Your task to perform on an android device: turn off javascript in the chrome app Image 0: 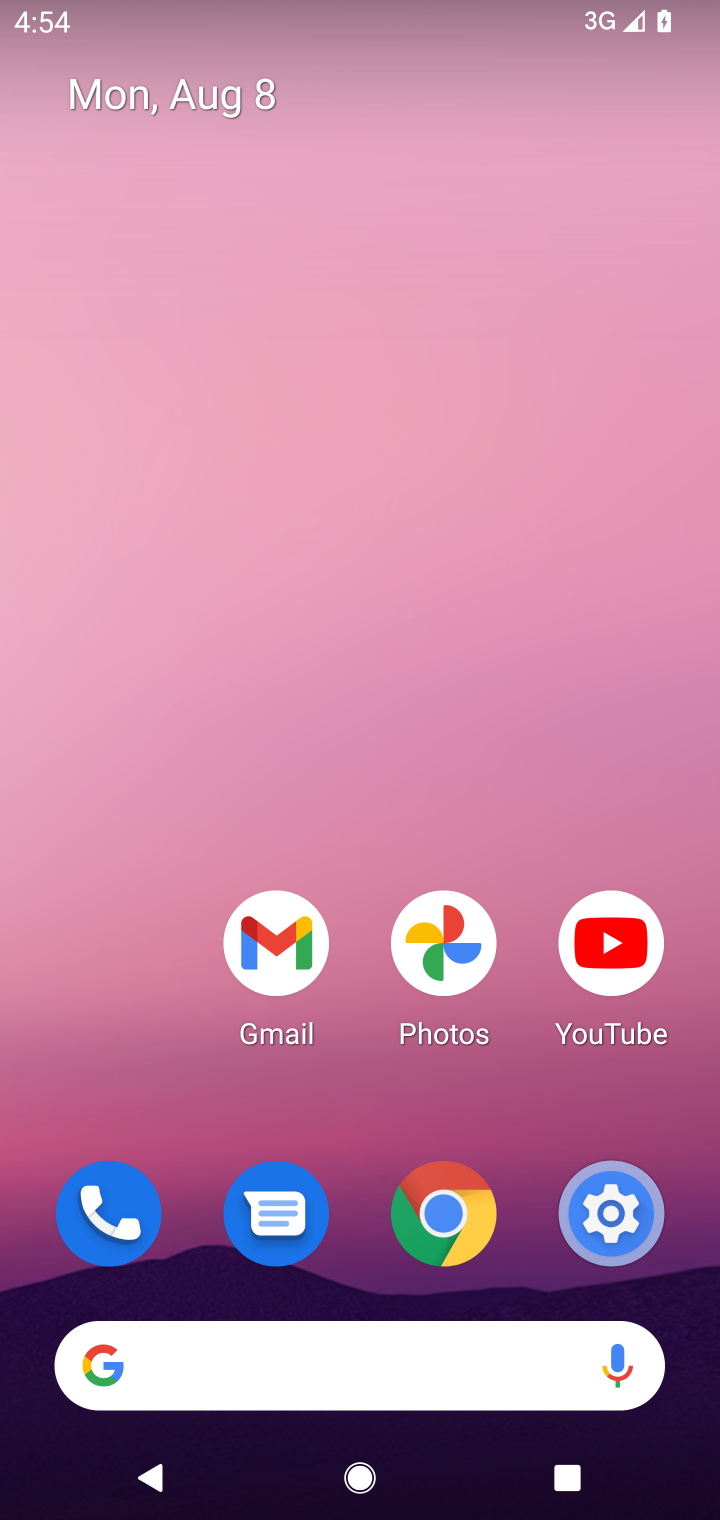
Step 0: click (407, 1248)
Your task to perform on an android device: turn off javascript in the chrome app Image 1: 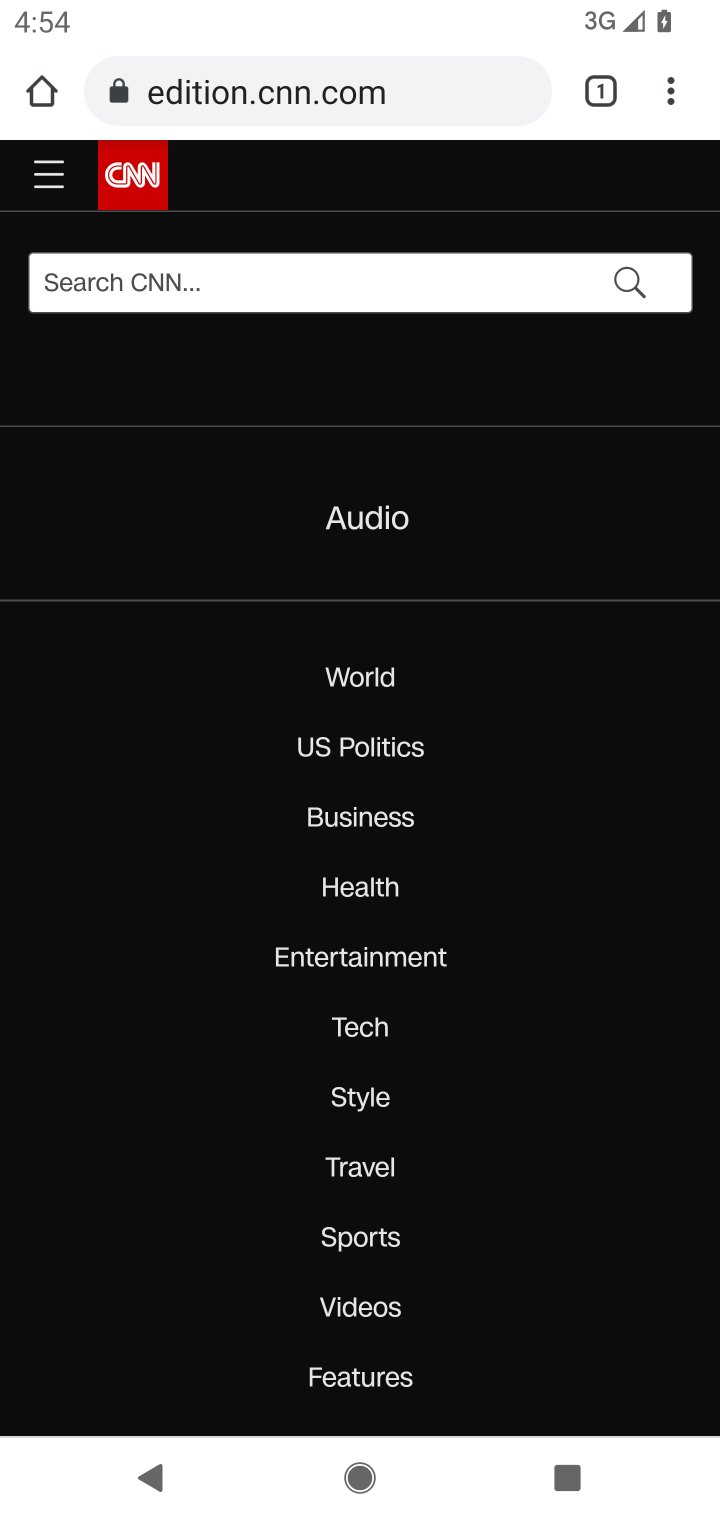
Step 1: click (673, 97)
Your task to perform on an android device: turn off javascript in the chrome app Image 2: 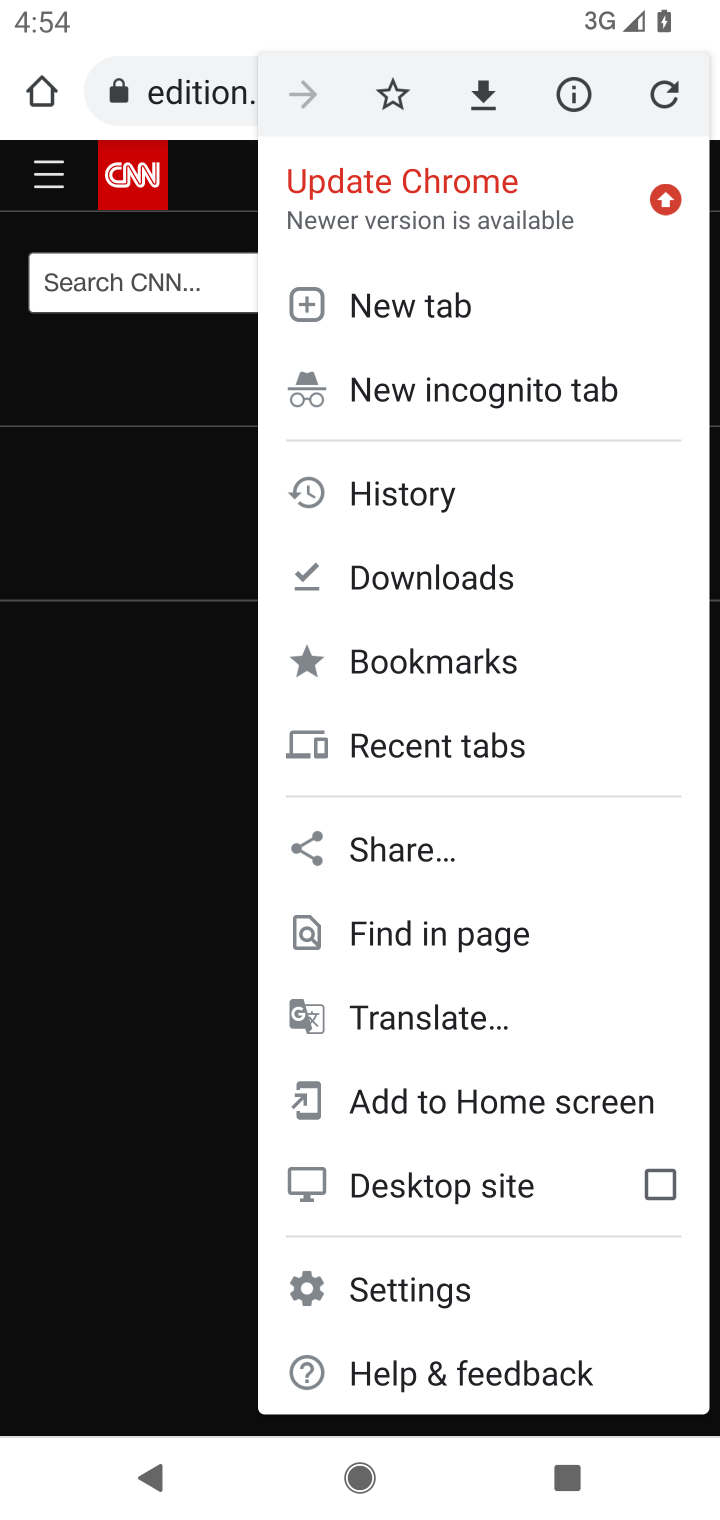
Step 2: click (437, 1285)
Your task to perform on an android device: turn off javascript in the chrome app Image 3: 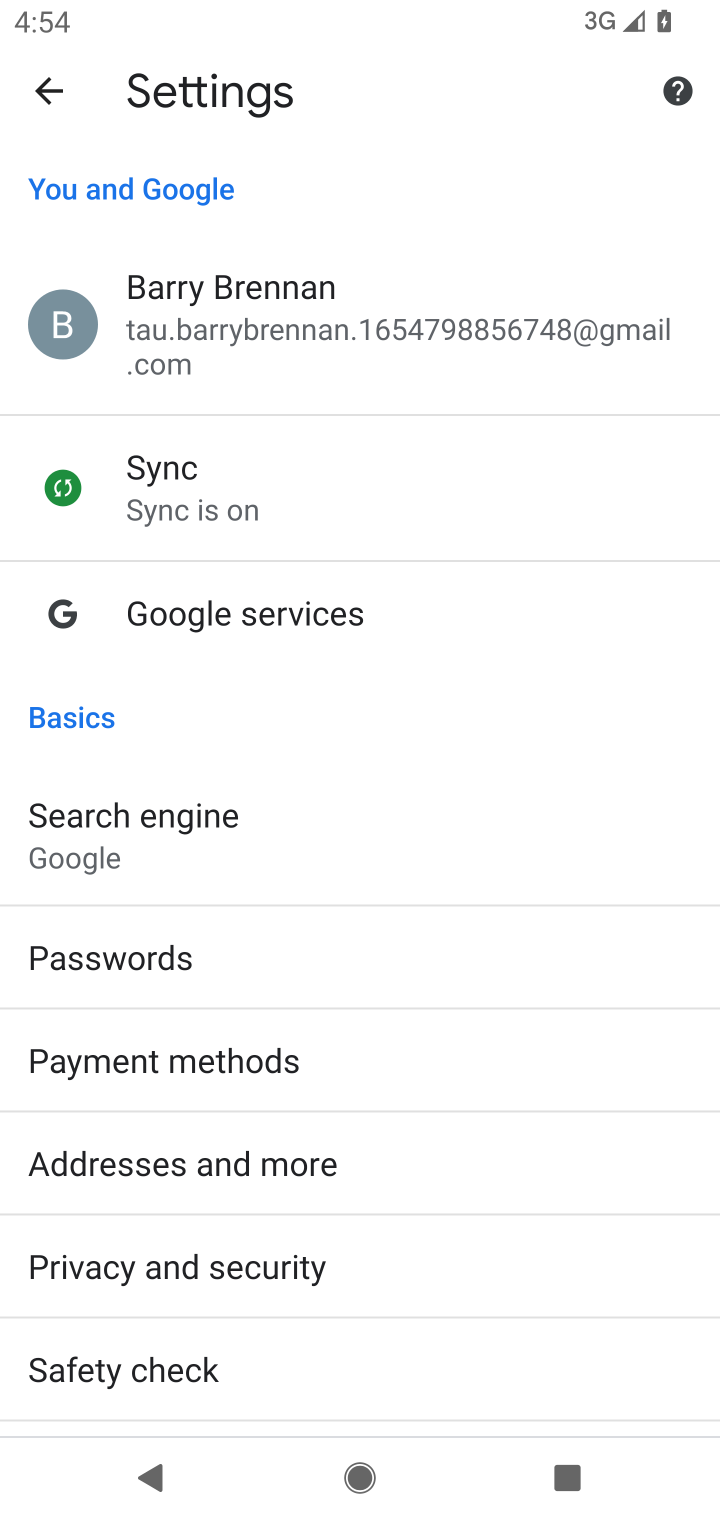
Step 3: drag from (284, 1375) to (284, 268)
Your task to perform on an android device: turn off javascript in the chrome app Image 4: 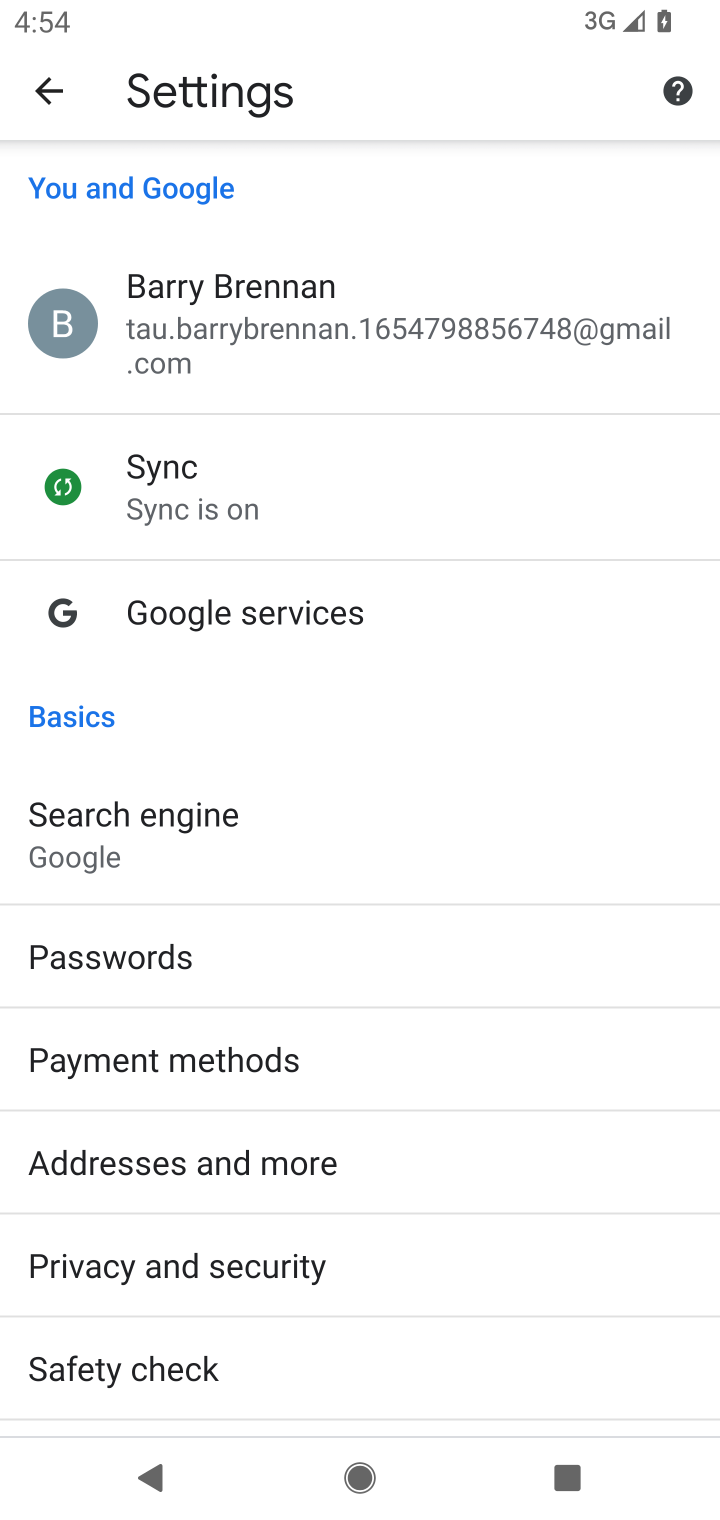
Step 4: drag from (282, 864) to (349, 13)
Your task to perform on an android device: turn off javascript in the chrome app Image 5: 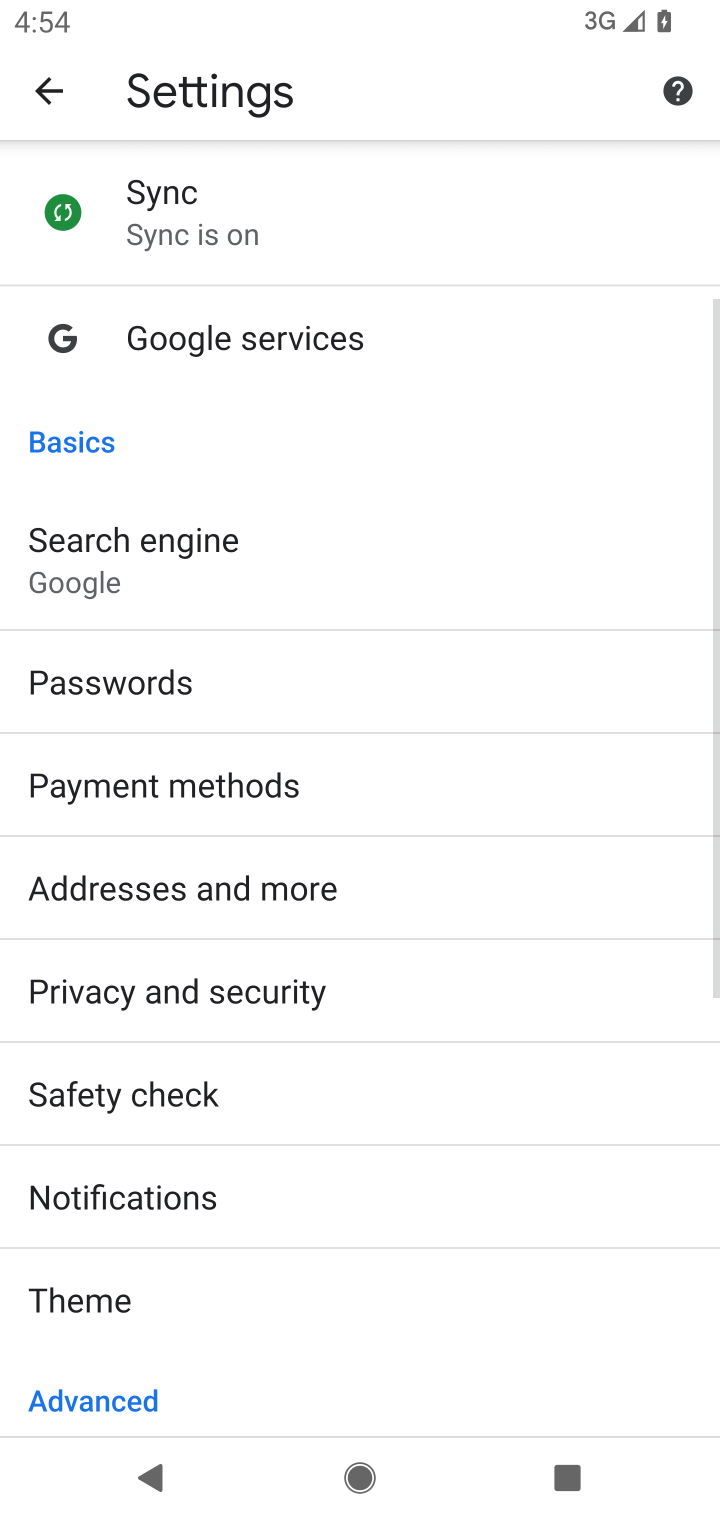
Step 5: drag from (377, 1129) to (377, 547)
Your task to perform on an android device: turn off javascript in the chrome app Image 6: 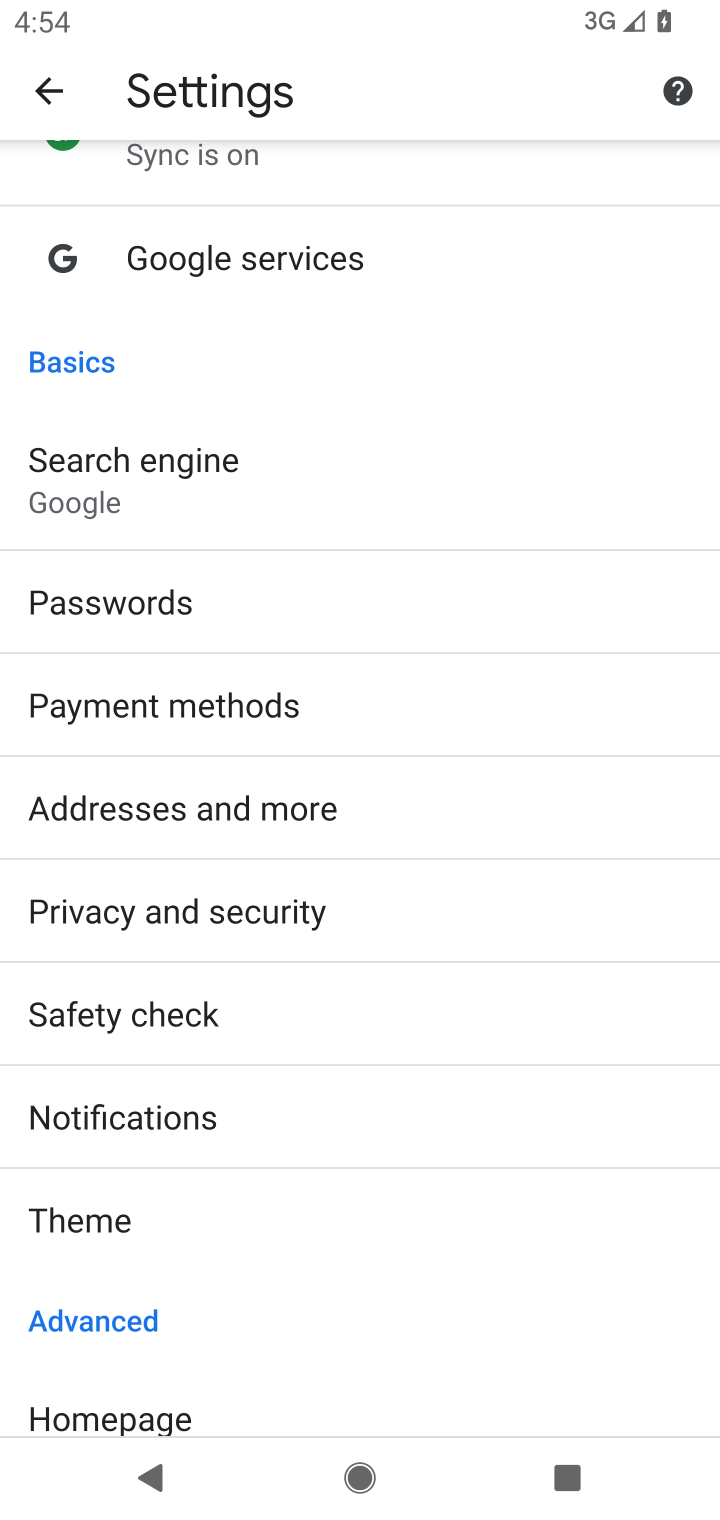
Step 6: drag from (321, 1359) to (322, 551)
Your task to perform on an android device: turn off javascript in the chrome app Image 7: 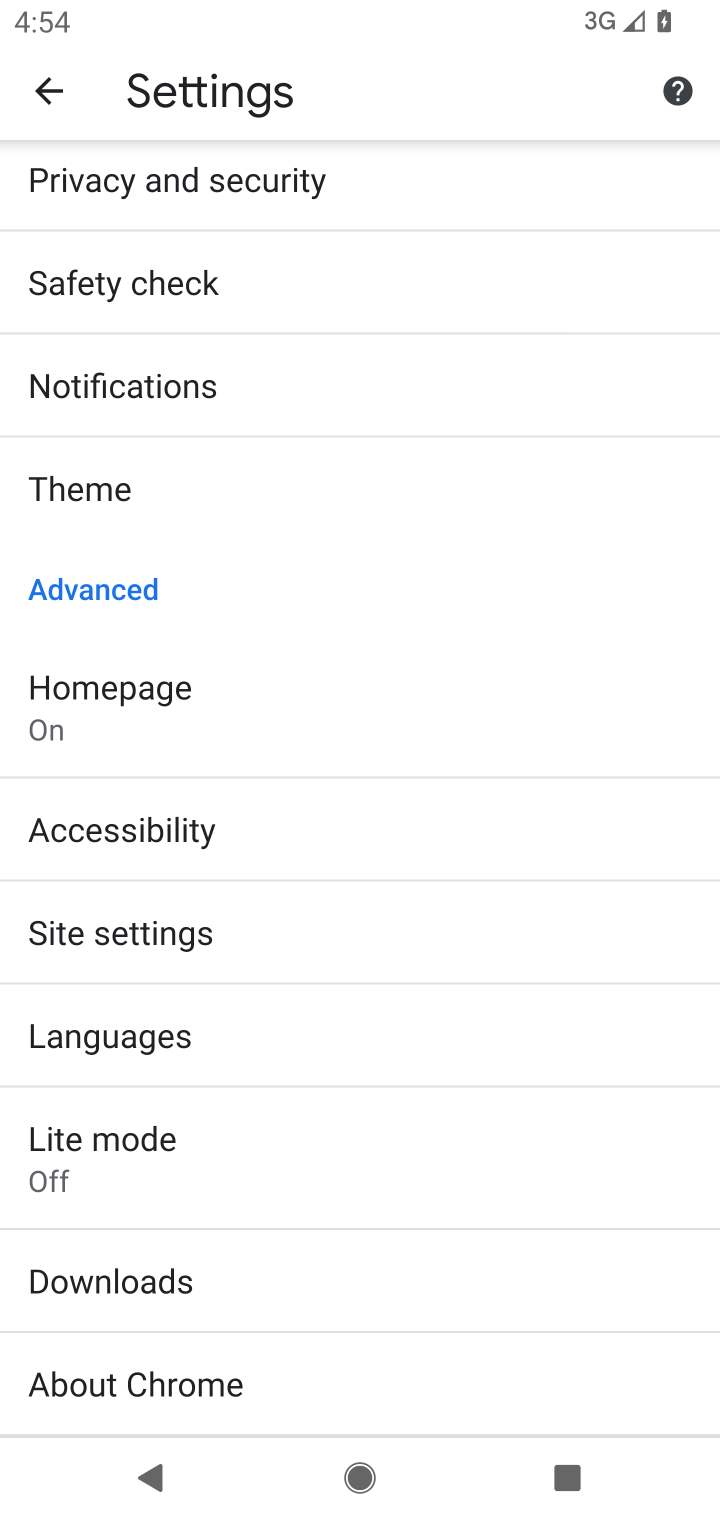
Step 7: click (382, 911)
Your task to perform on an android device: turn off javascript in the chrome app Image 8: 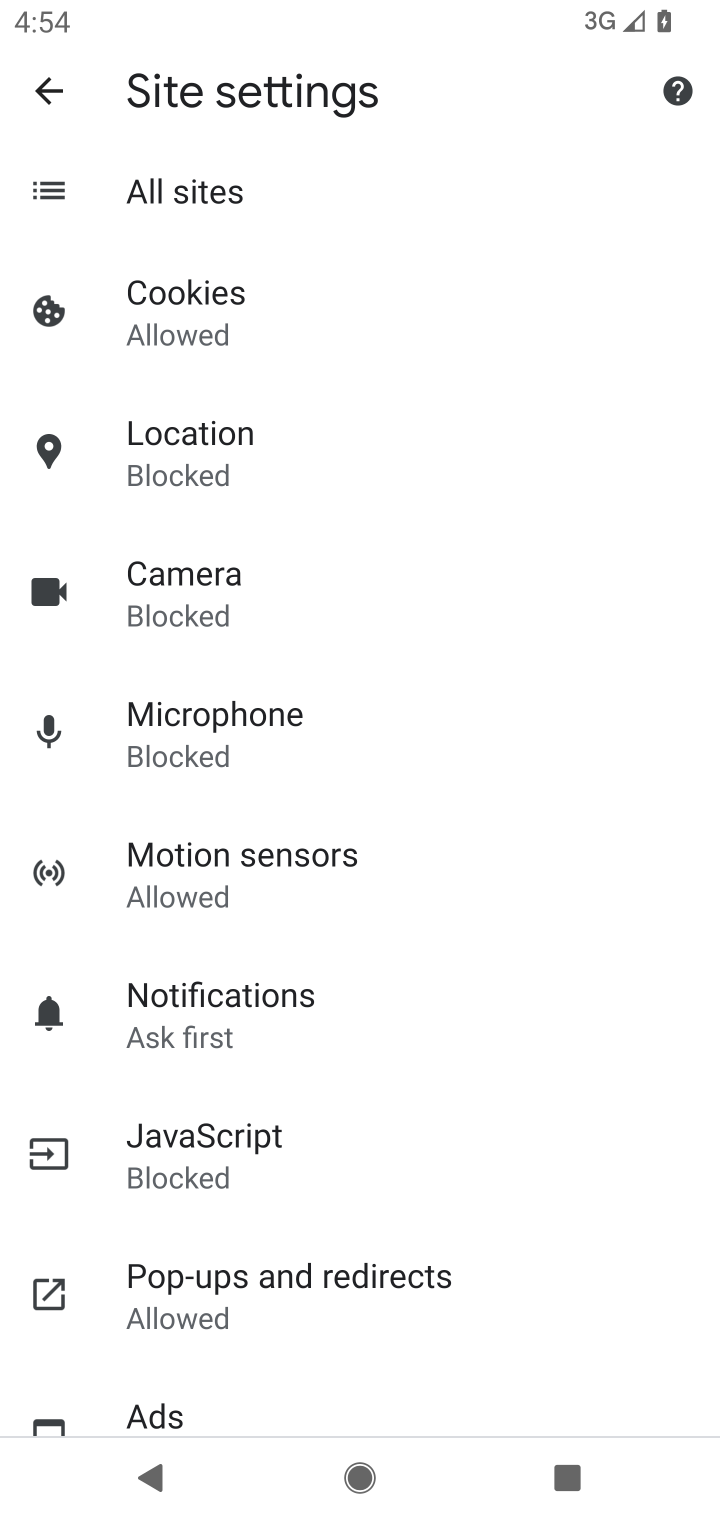
Step 8: click (360, 1164)
Your task to perform on an android device: turn off javascript in the chrome app Image 9: 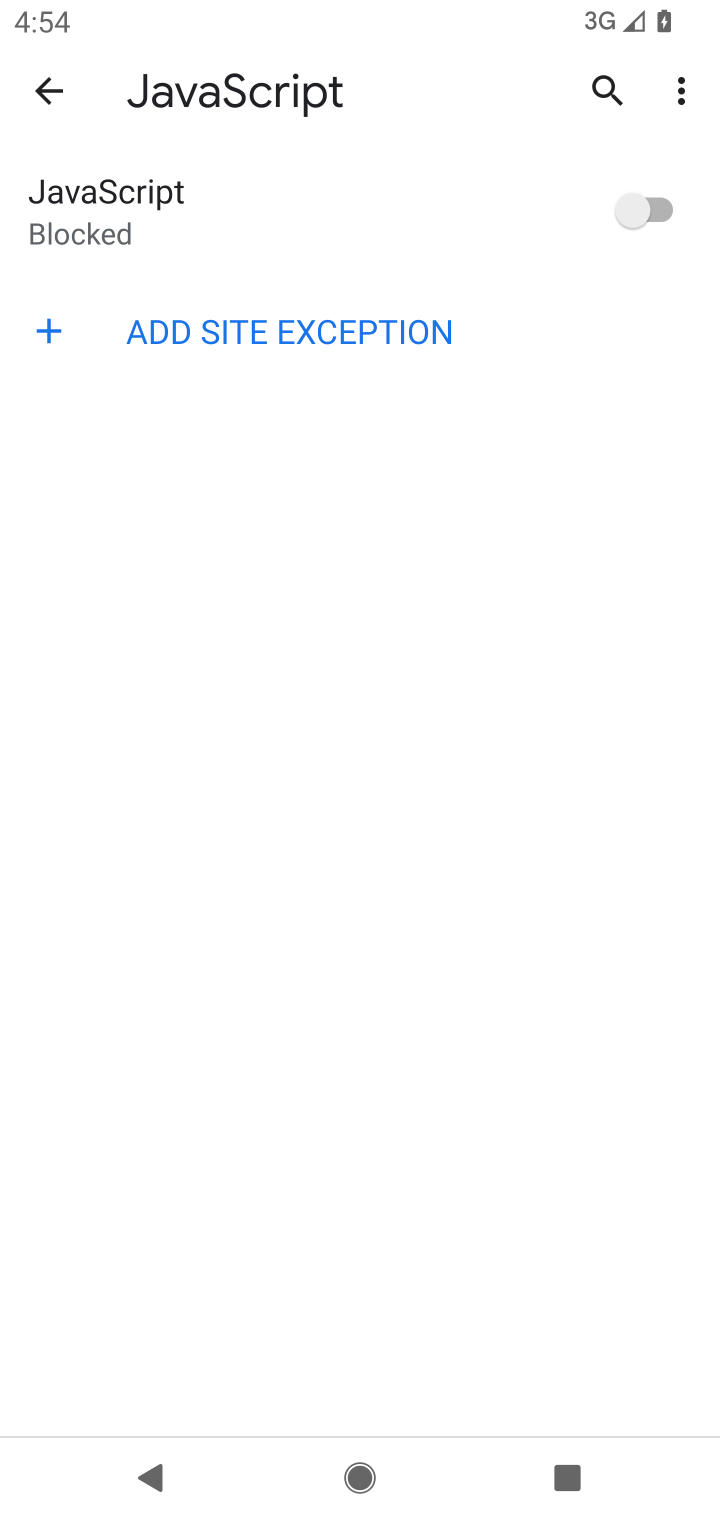
Step 9: task complete